Your task to perform on an android device: open sync settings in chrome Image 0: 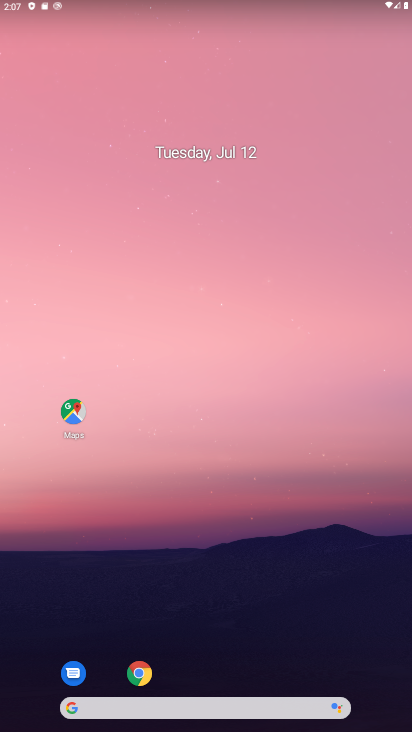
Step 0: drag from (297, 698) to (214, 127)
Your task to perform on an android device: open sync settings in chrome Image 1: 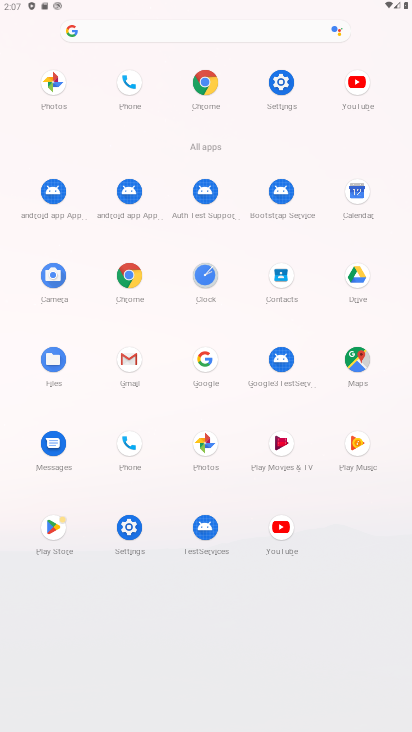
Step 1: click (130, 534)
Your task to perform on an android device: open sync settings in chrome Image 2: 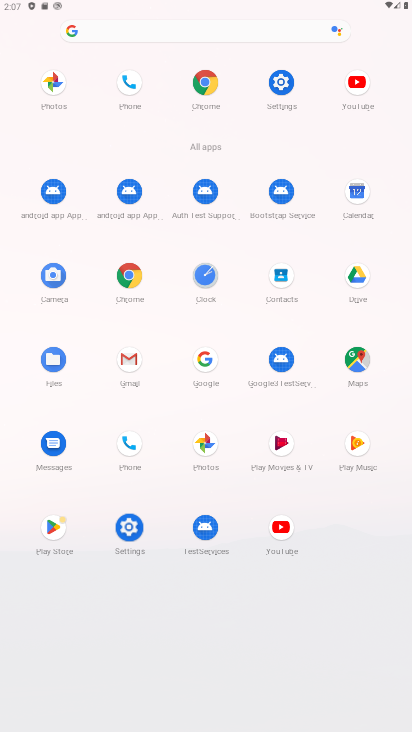
Step 2: click (135, 526)
Your task to perform on an android device: open sync settings in chrome Image 3: 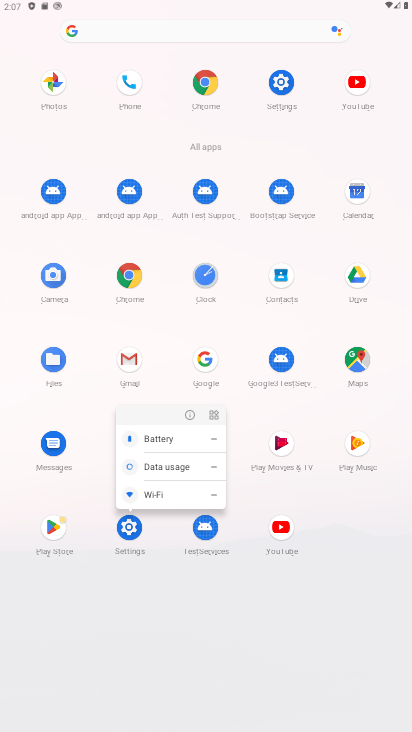
Step 3: click (133, 534)
Your task to perform on an android device: open sync settings in chrome Image 4: 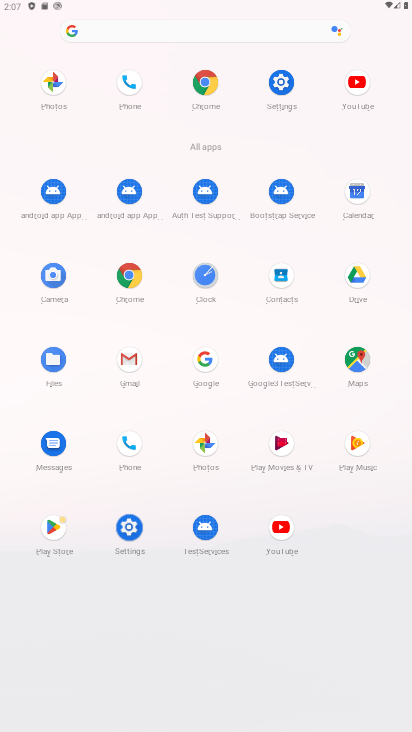
Step 4: click (133, 532)
Your task to perform on an android device: open sync settings in chrome Image 5: 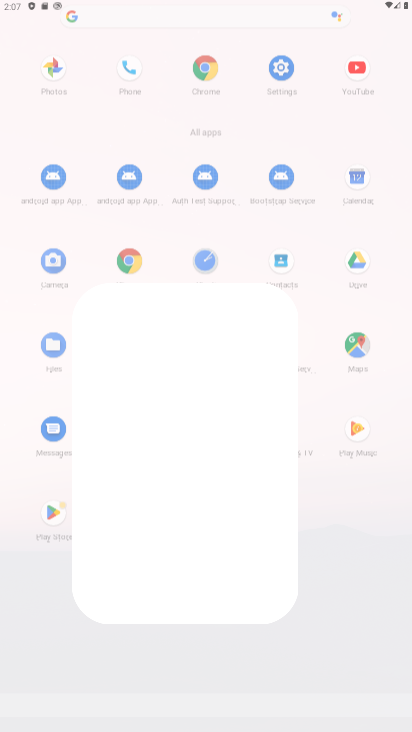
Step 5: click (133, 532)
Your task to perform on an android device: open sync settings in chrome Image 6: 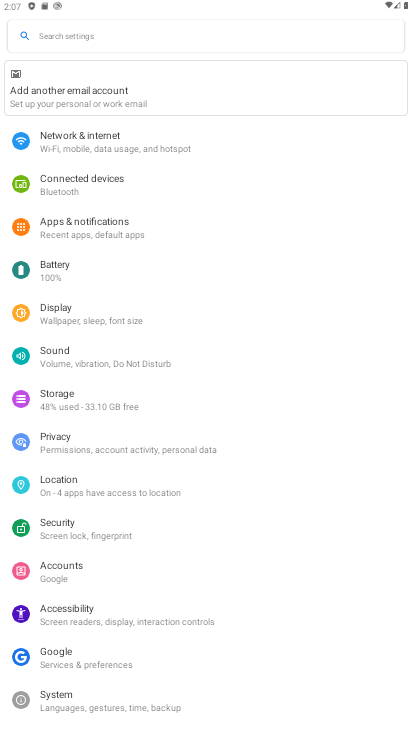
Step 6: press back button
Your task to perform on an android device: open sync settings in chrome Image 7: 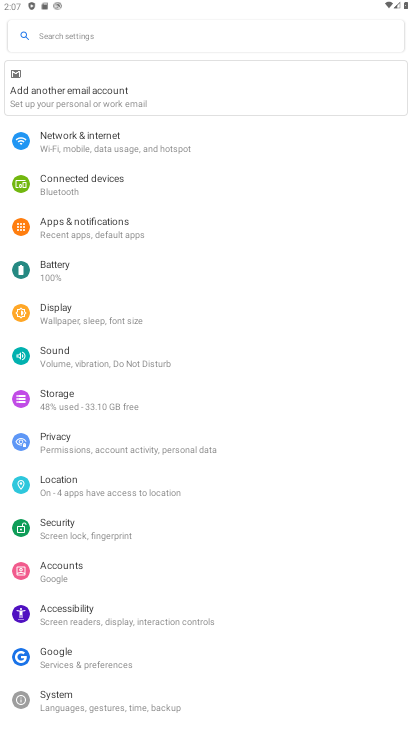
Step 7: press back button
Your task to perform on an android device: open sync settings in chrome Image 8: 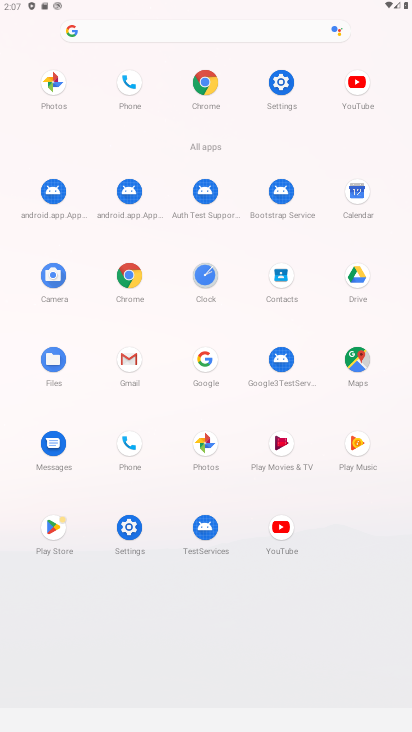
Step 8: press back button
Your task to perform on an android device: open sync settings in chrome Image 9: 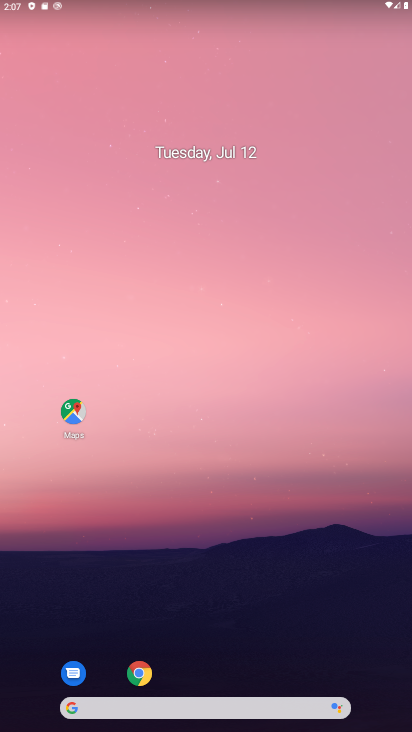
Step 9: drag from (240, 654) to (147, 51)
Your task to perform on an android device: open sync settings in chrome Image 10: 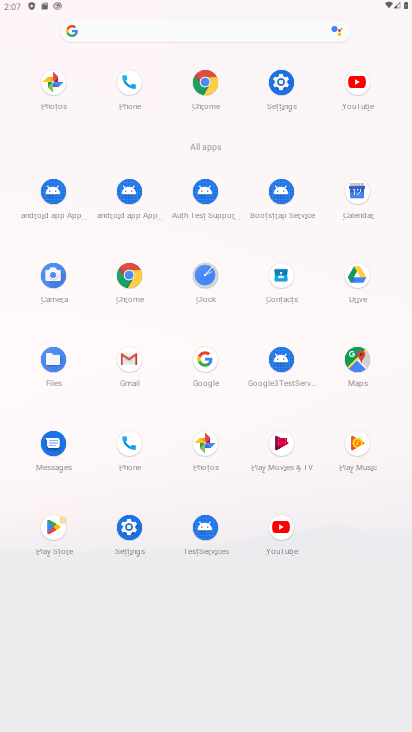
Step 10: click (121, 263)
Your task to perform on an android device: open sync settings in chrome Image 11: 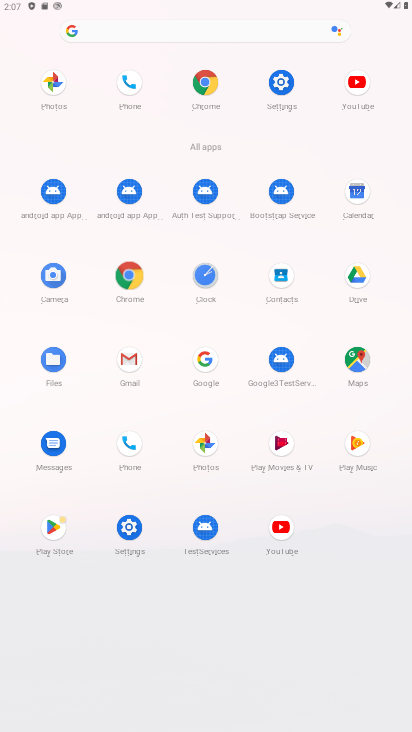
Step 11: click (124, 262)
Your task to perform on an android device: open sync settings in chrome Image 12: 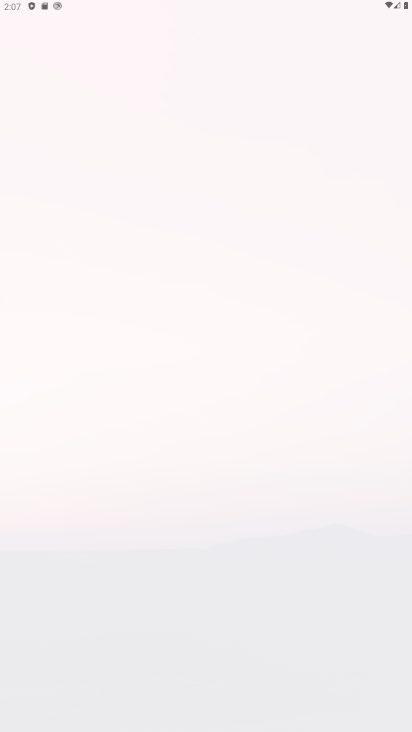
Step 12: click (125, 262)
Your task to perform on an android device: open sync settings in chrome Image 13: 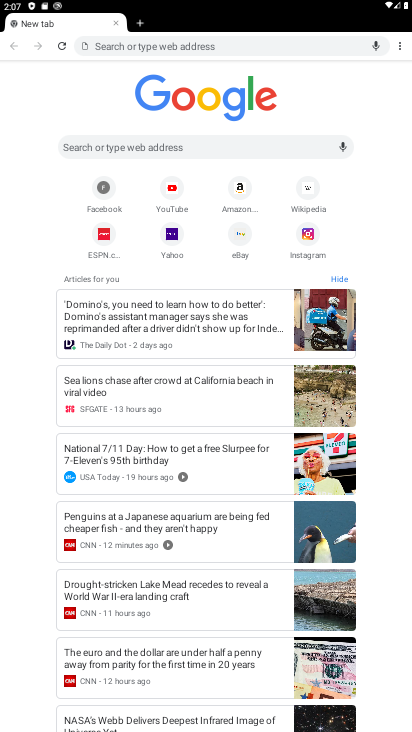
Step 13: click (397, 39)
Your task to perform on an android device: open sync settings in chrome Image 14: 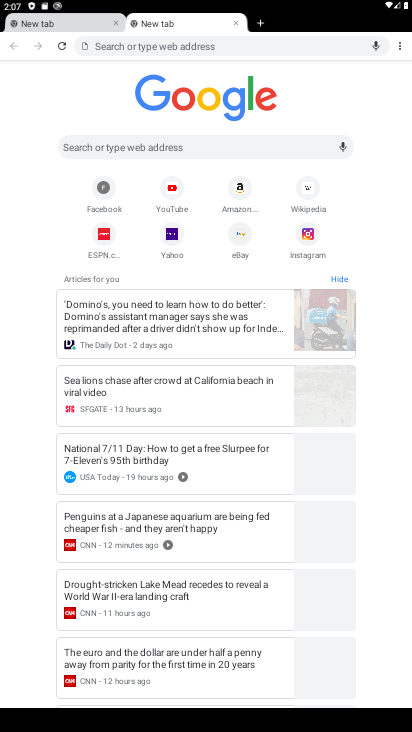
Step 14: drag from (399, 45) to (304, 217)
Your task to perform on an android device: open sync settings in chrome Image 15: 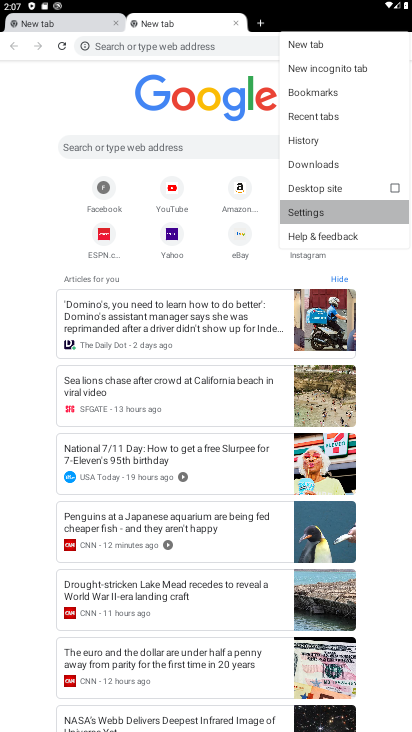
Step 15: click (304, 217)
Your task to perform on an android device: open sync settings in chrome Image 16: 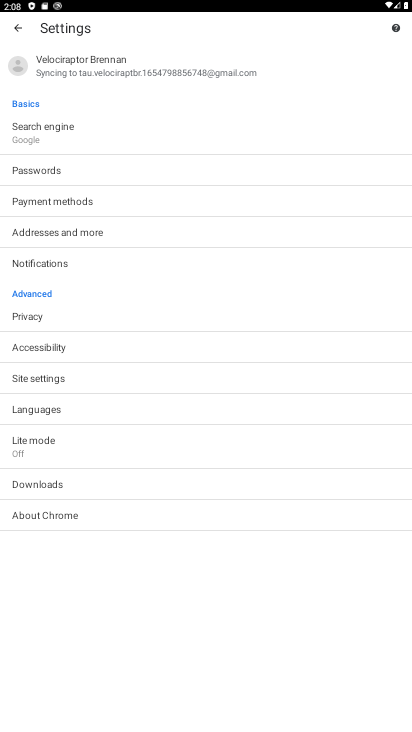
Step 16: click (31, 371)
Your task to perform on an android device: open sync settings in chrome Image 17: 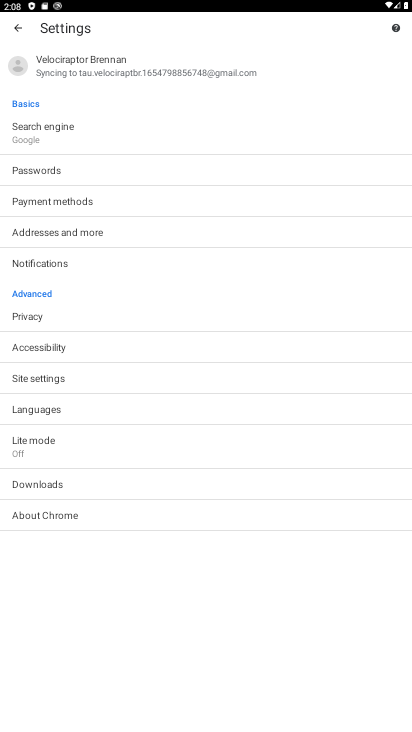
Step 17: click (31, 371)
Your task to perform on an android device: open sync settings in chrome Image 18: 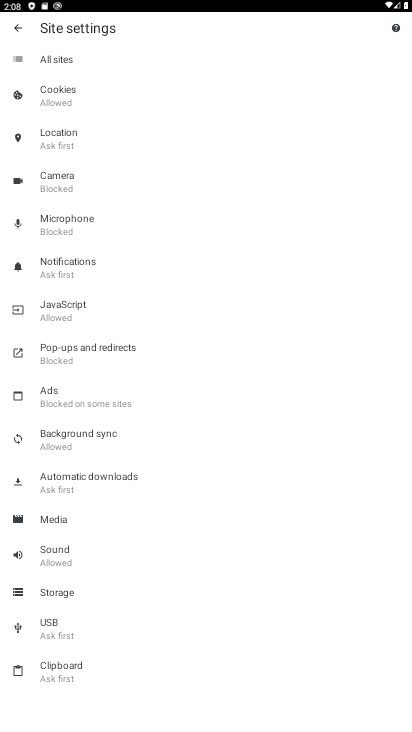
Step 18: click (57, 436)
Your task to perform on an android device: open sync settings in chrome Image 19: 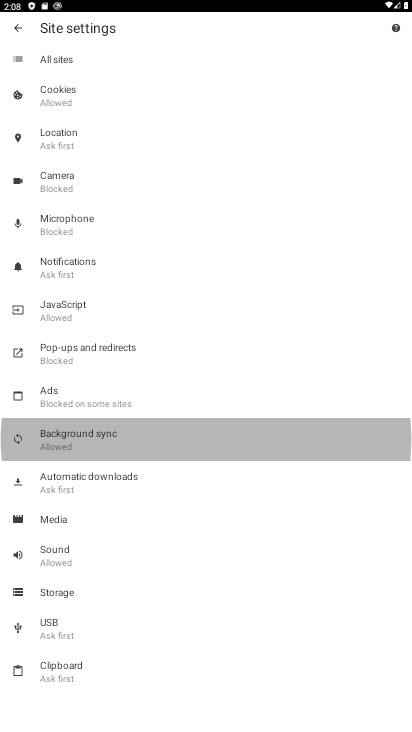
Step 19: click (65, 429)
Your task to perform on an android device: open sync settings in chrome Image 20: 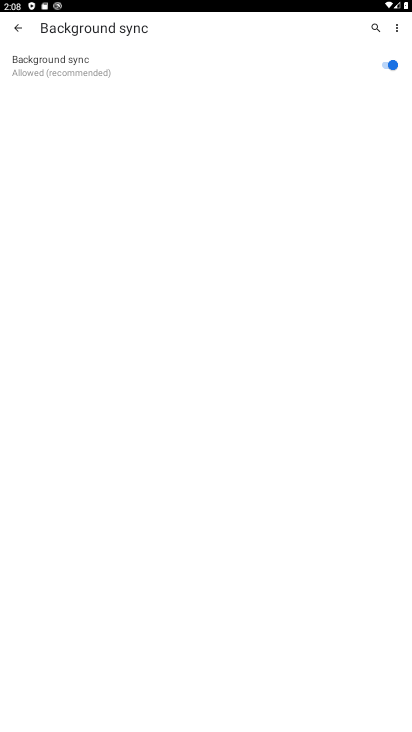
Step 20: task complete